Your task to perform on an android device: Search for usb-c to usb-a on bestbuy, select the first entry, and add it to the cart. Image 0: 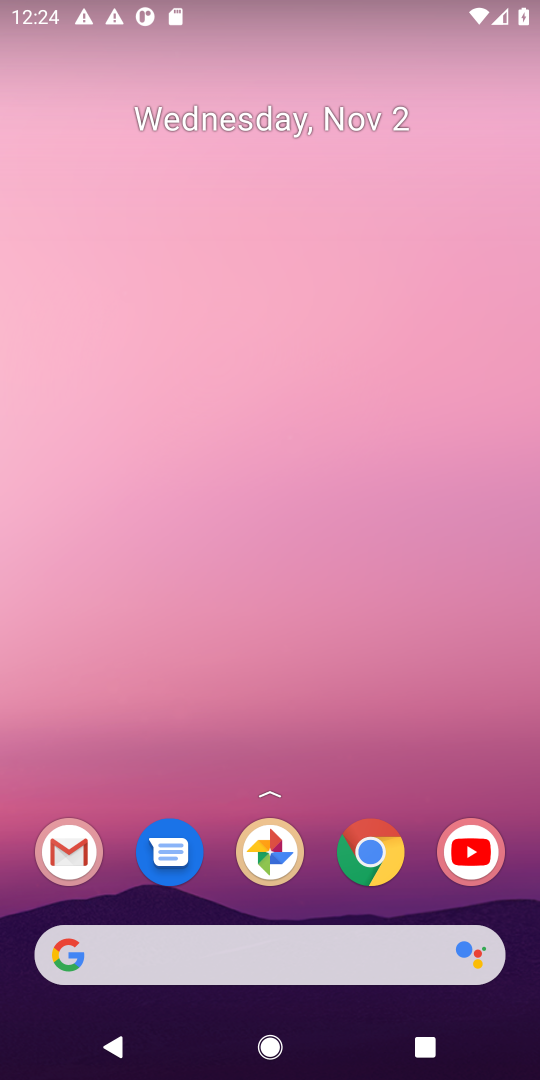
Step 0: click (103, 1070)
Your task to perform on an android device: Search for usb-c to usb-a on bestbuy, select the first entry, and add it to the cart. Image 1: 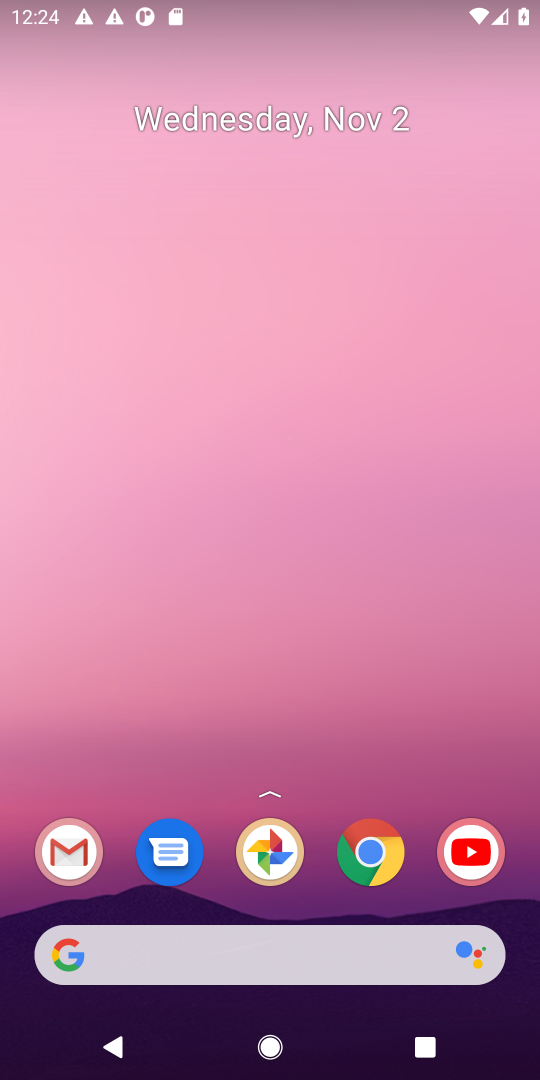
Step 1: click (61, 954)
Your task to perform on an android device: Search for usb-c to usb-a on bestbuy, select the first entry, and add it to the cart. Image 2: 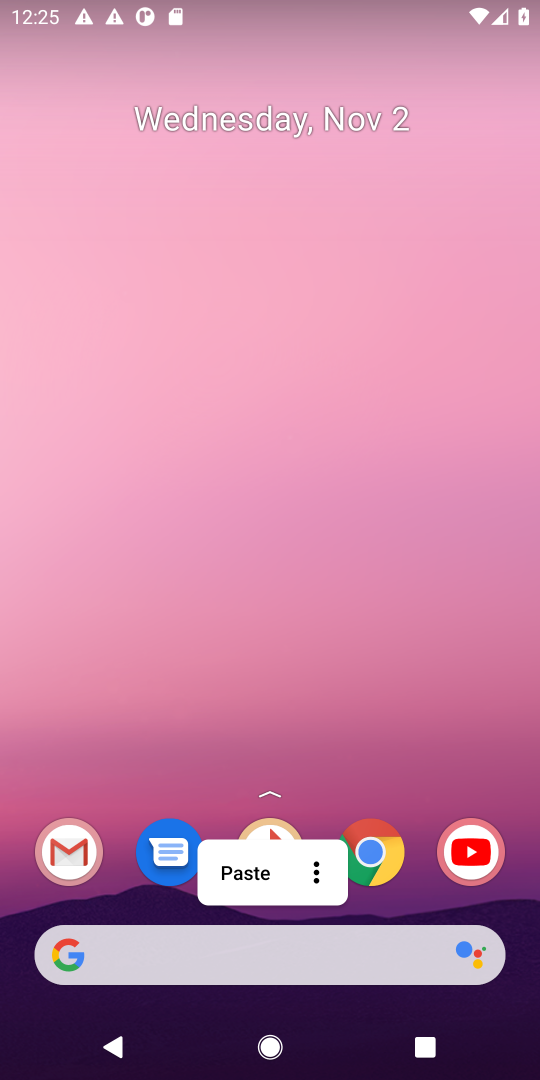
Step 2: click (73, 957)
Your task to perform on an android device: Search for usb-c to usb-a on bestbuy, select the first entry, and add it to the cart. Image 3: 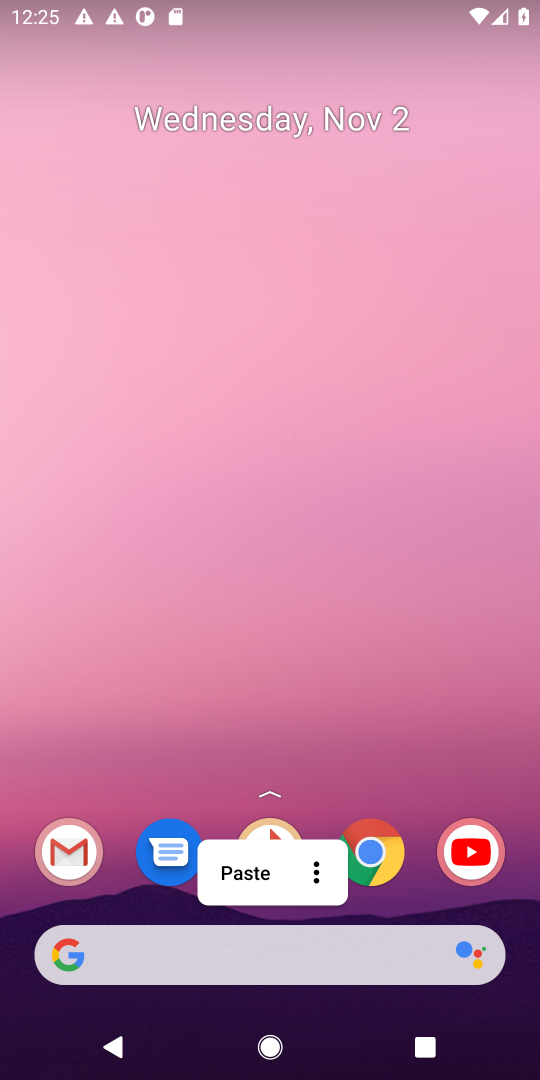
Step 3: click (76, 957)
Your task to perform on an android device: Search for usb-c to usb-a on bestbuy, select the first entry, and add it to the cart. Image 4: 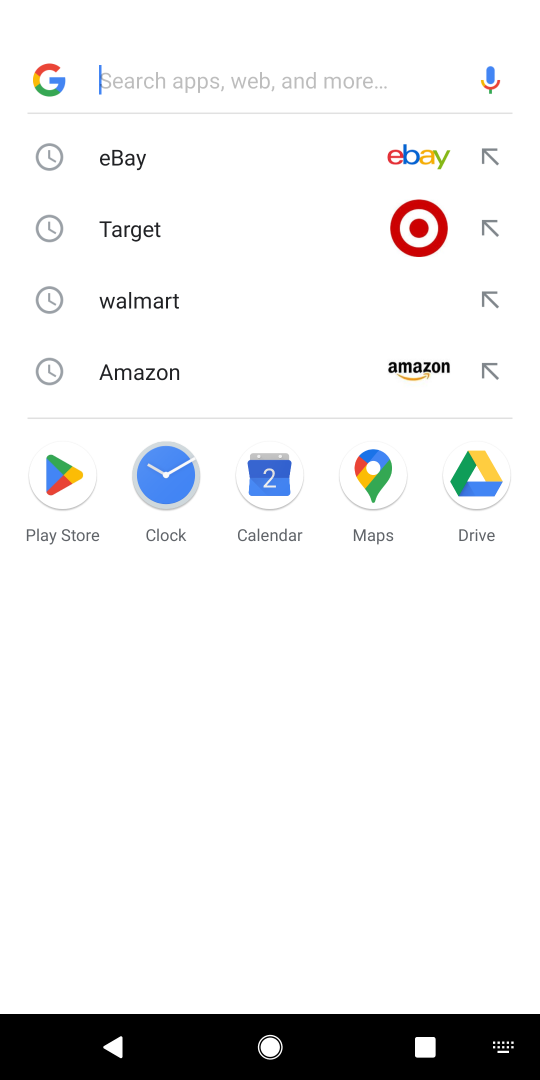
Step 4: type " bestbuy"
Your task to perform on an android device: Search for usb-c to usb-a on bestbuy, select the first entry, and add it to the cart. Image 5: 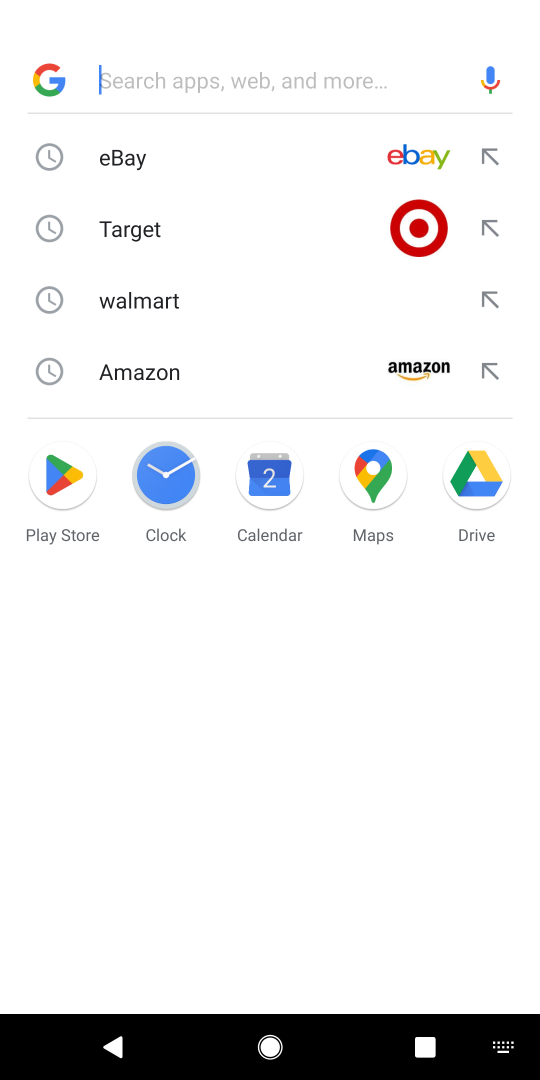
Step 5: click (119, 70)
Your task to perform on an android device: Search for usb-c to usb-a on bestbuy, select the first entry, and add it to the cart. Image 6: 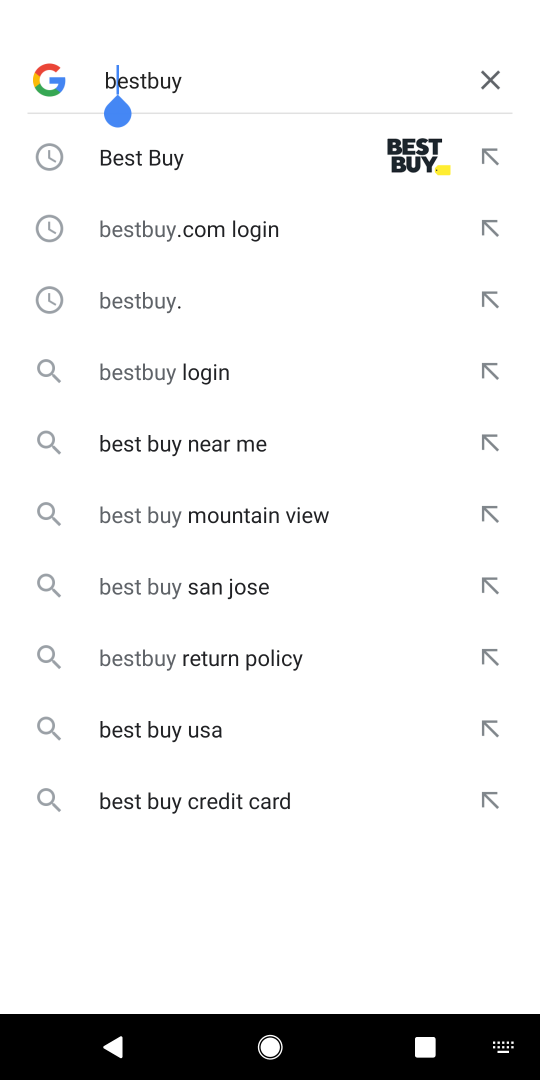
Step 6: click (421, 136)
Your task to perform on an android device: Search for usb-c to usb-a on bestbuy, select the first entry, and add it to the cart. Image 7: 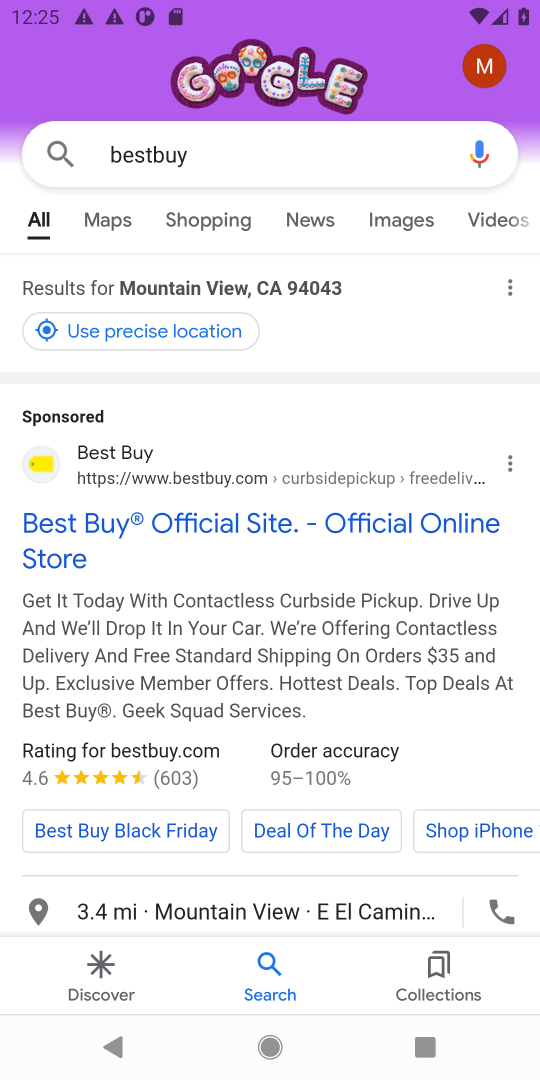
Step 7: click (157, 522)
Your task to perform on an android device: Search for usb-c to usb-a on bestbuy, select the first entry, and add it to the cart. Image 8: 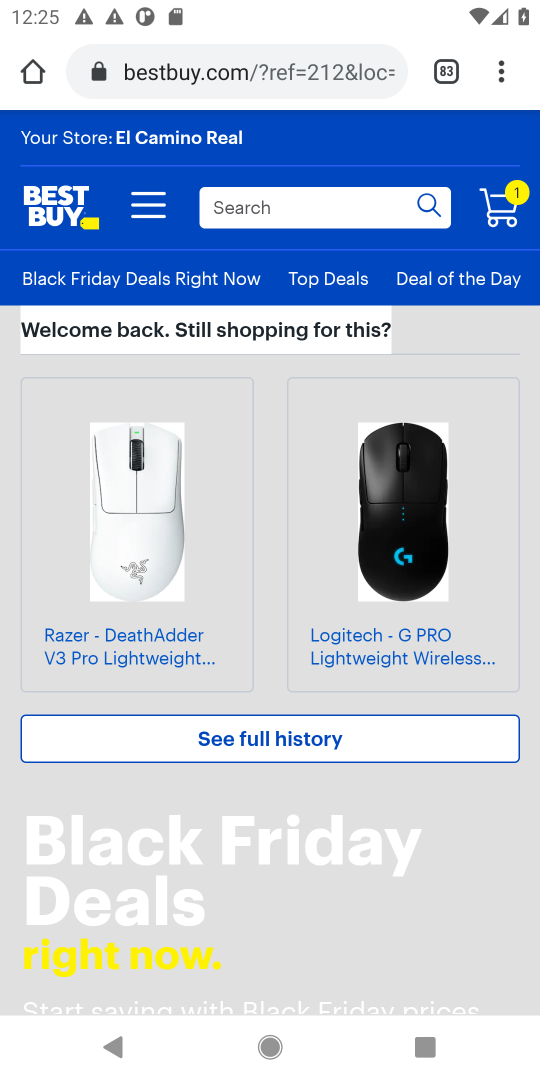
Step 8: click (250, 212)
Your task to perform on an android device: Search for usb-c to usb-a on bestbuy, select the first entry, and add it to the cart. Image 9: 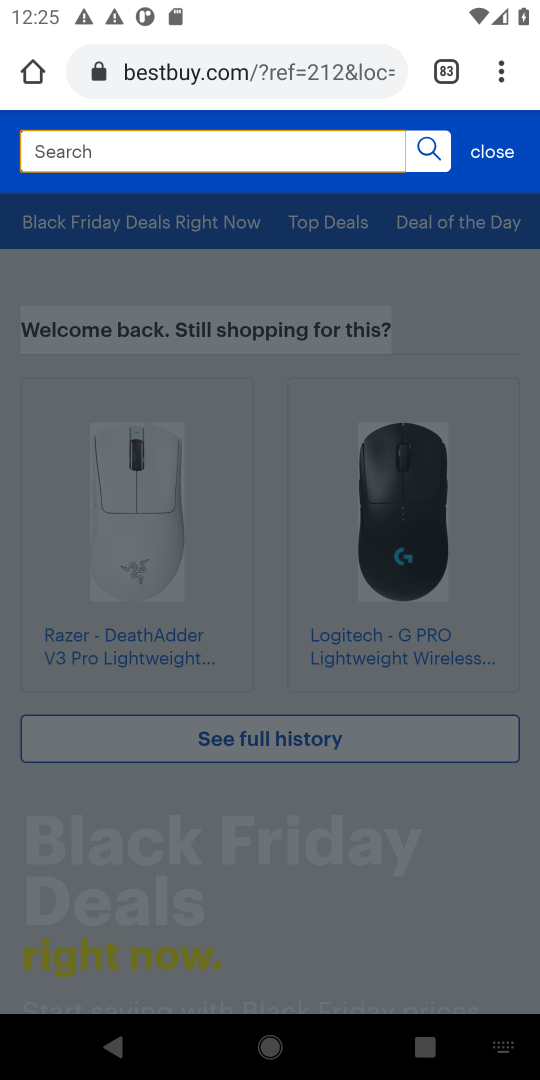
Step 9: type "usb-c to usb-a "
Your task to perform on an android device: Search for usb-c to usb-a on bestbuy, select the first entry, and add it to the cart. Image 10: 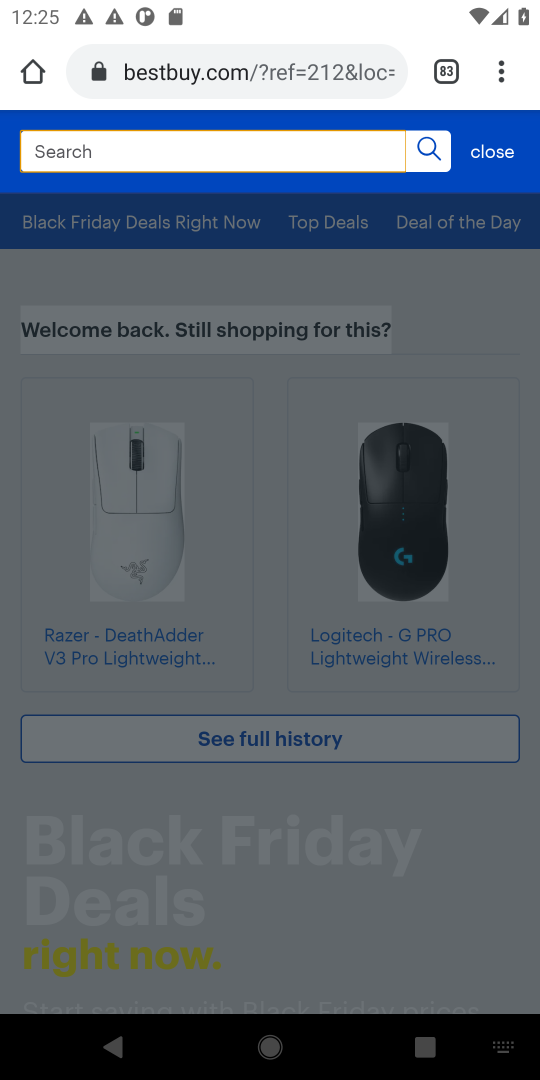
Step 10: click (103, 135)
Your task to perform on an android device: Search for usb-c to usb-a on bestbuy, select the first entry, and add it to the cart. Image 11: 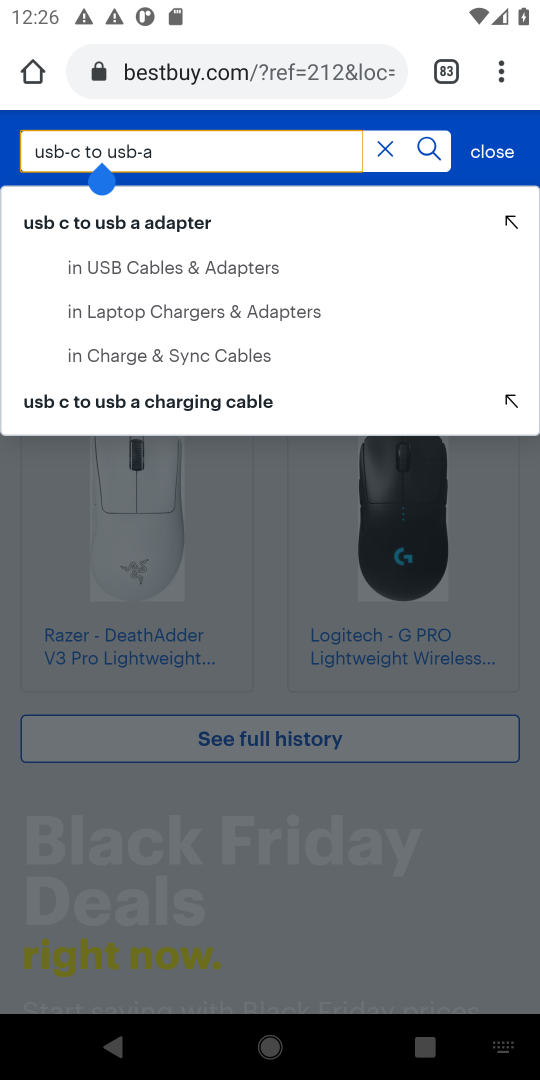
Step 11: press enter
Your task to perform on an android device: Search for usb-c to usb-a on bestbuy, select the first entry, and add it to the cart. Image 12: 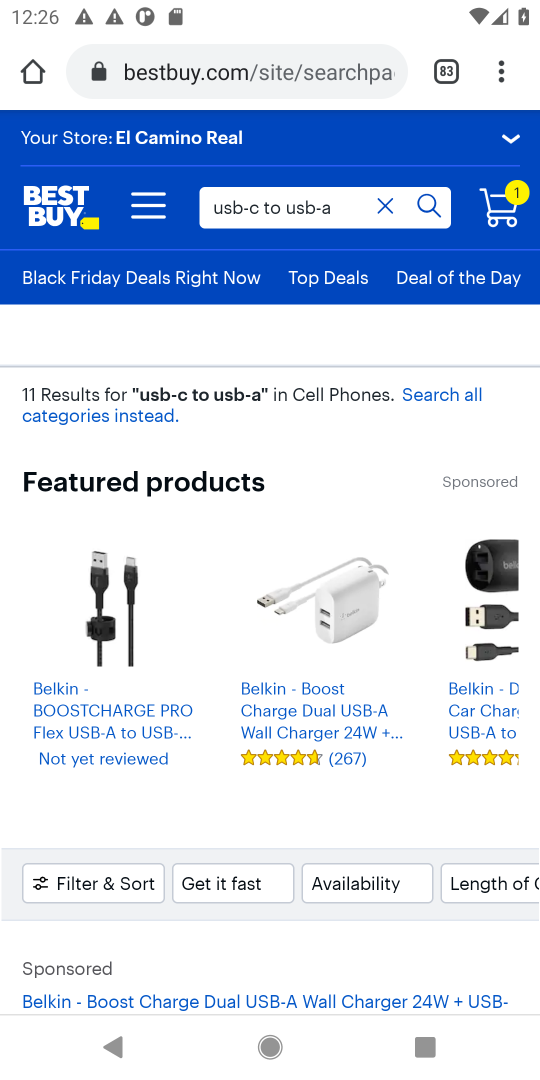
Step 12: drag from (273, 750) to (281, 214)
Your task to perform on an android device: Search for usb-c to usb-a on bestbuy, select the first entry, and add it to the cart. Image 13: 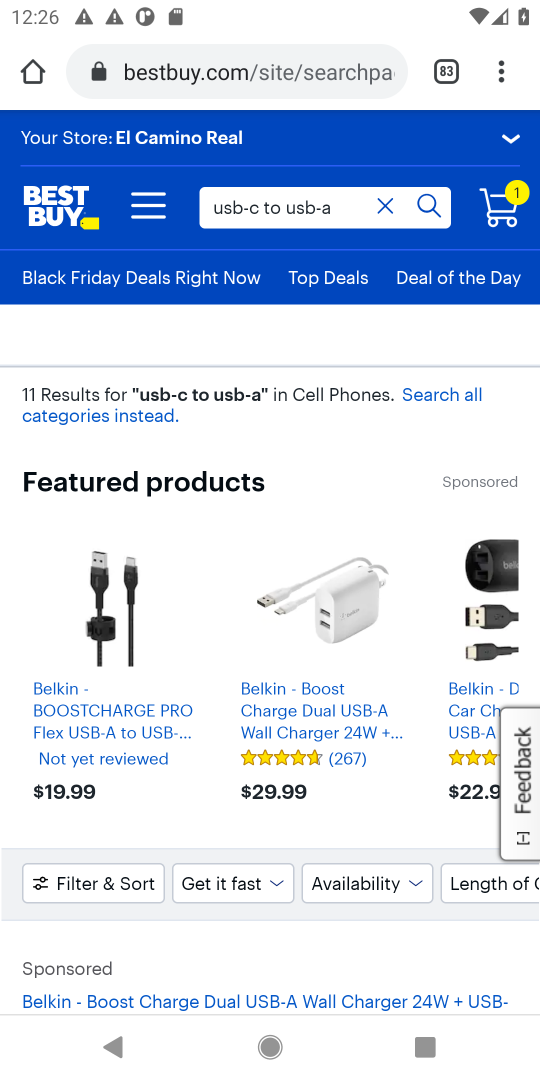
Step 13: drag from (262, 970) to (296, 406)
Your task to perform on an android device: Search for usb-c to usb-a on bestbuy, select the first entry, and add it to the cart. Image 14: 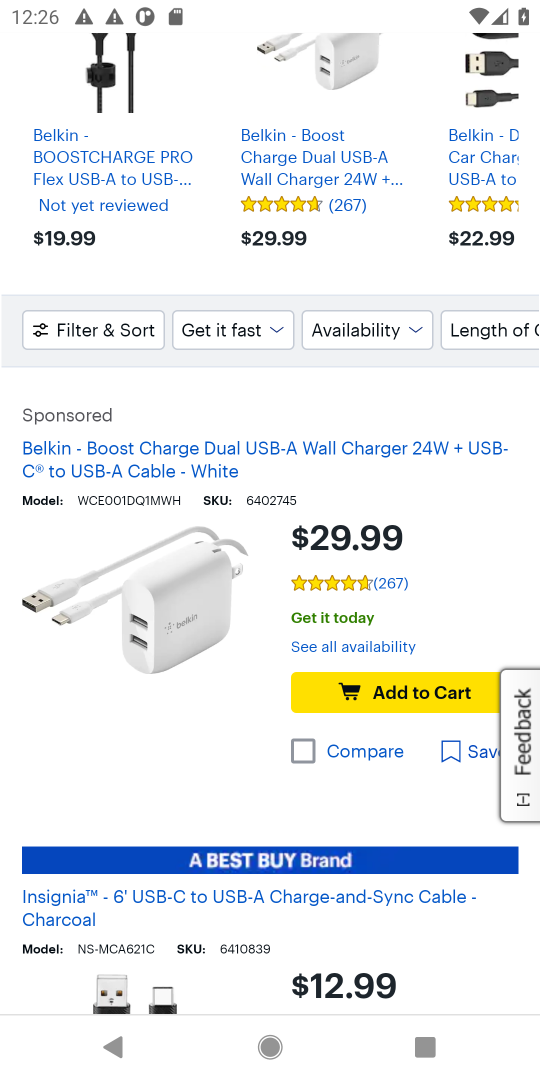
Step 14: click (373, 448)
Your task to perform on an android device: Search for usb-c to usb-a on bestbuy, select the first entry, and add it to the cart. Image 15: 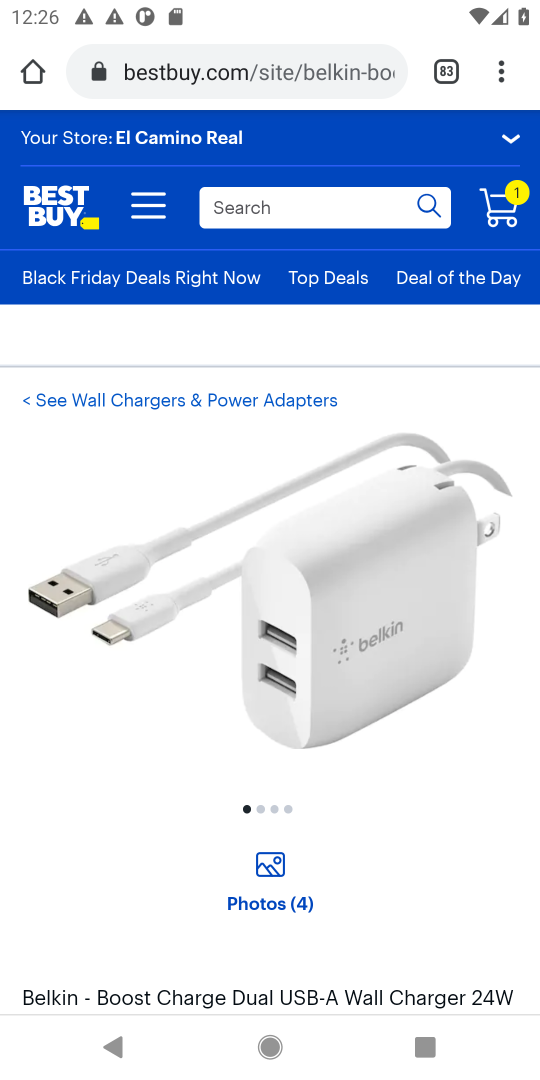
Step 15: drag from (396, 868) to (322, 301)
Your task to perform on an android device: Search for usb-c to usb-a on bestbuy, select the first entry, and add it to the cart. Image 16: 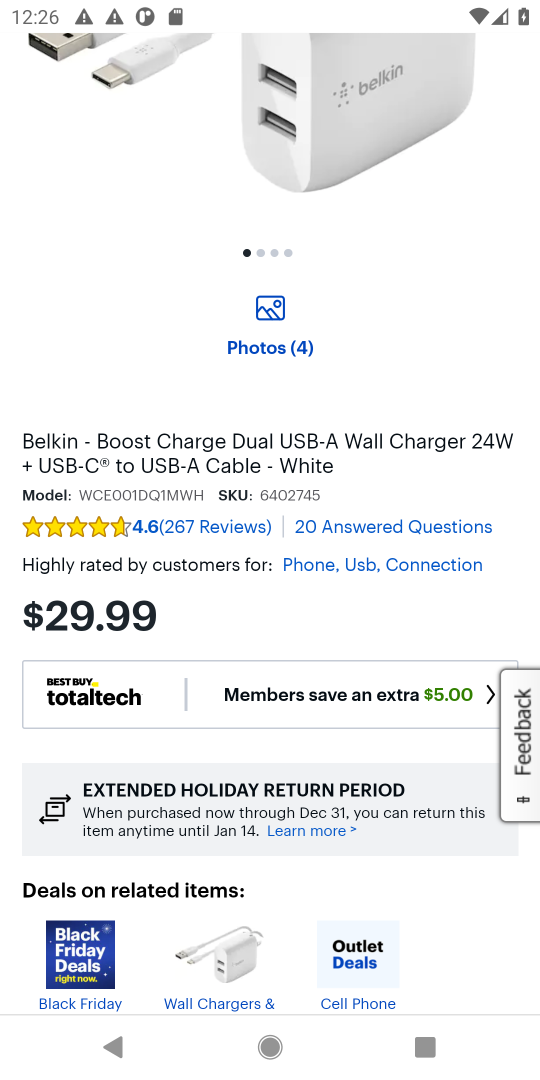
Step 16: drag from (345, 853) to (326, 303)
Your task to perform on an android device: Search for usb-c to usb-a on bestbuy, select the first entry, and add it to the cart. Image 17: 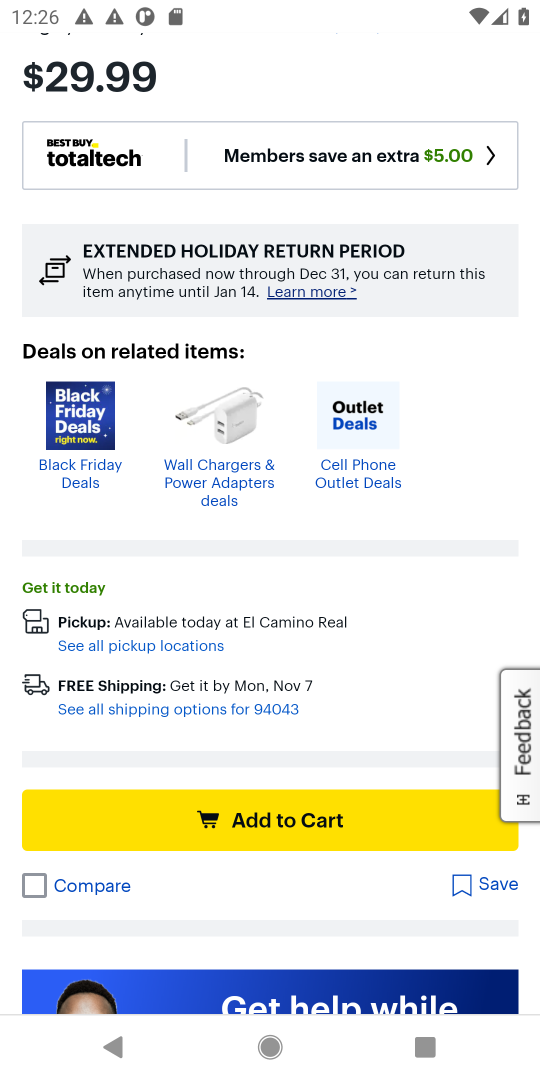
Step 17: click (198, 825)
Your task to perform on an android device: Search for usb-c to usb-a on bestbuy, select the first entry, and add it to the cart. Image 18: 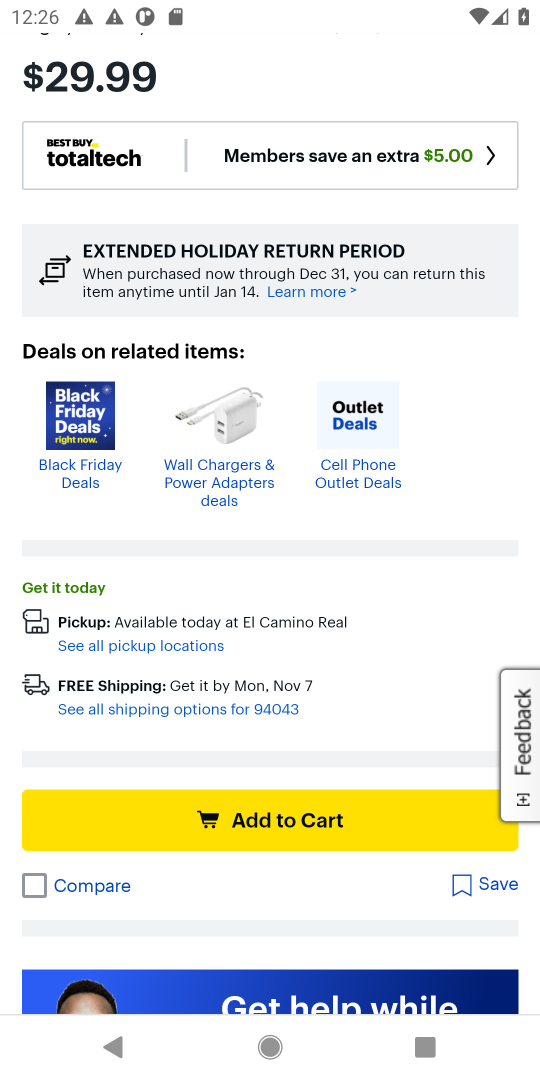
Step 18: task complete